Your task to perform on an android device: What's the weather today? Image 0: 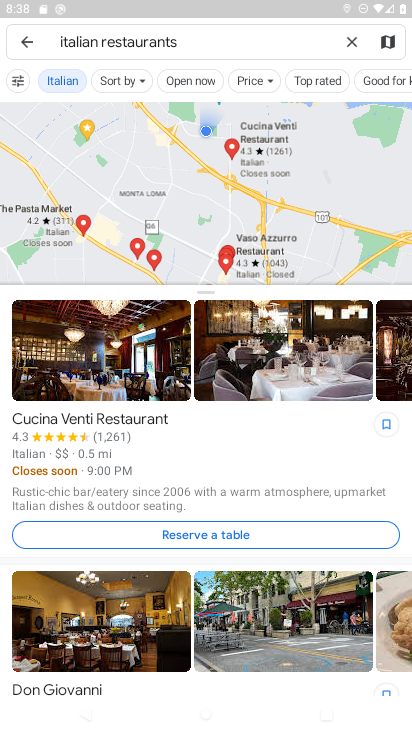
Step 0: press home button
Your task to perform on an android device: What's the weather today? Image 1: 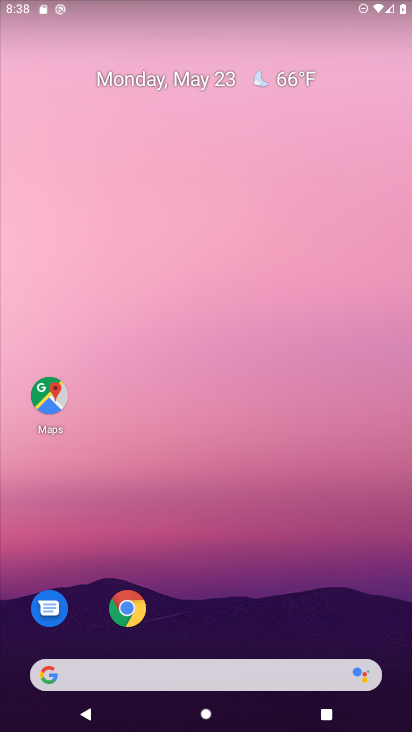
Step 1: click (259, 81)
Your task to perform on an android device: What's the weather today? Image 2: 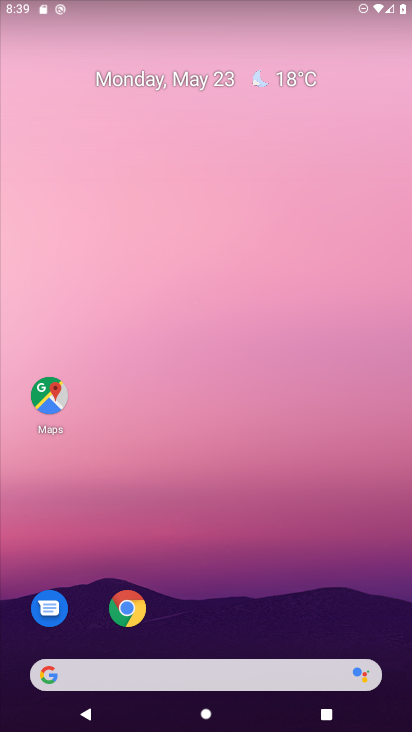
Step 2: click (257, 72)
Your task to perform on an android device: What's the weather today? Image 3: 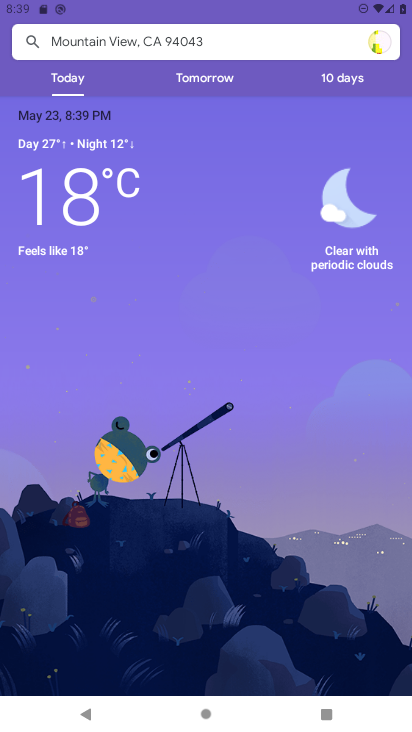
Step 3: task complete